Your task to perform on an android device: change the clock display to digital Image 0: 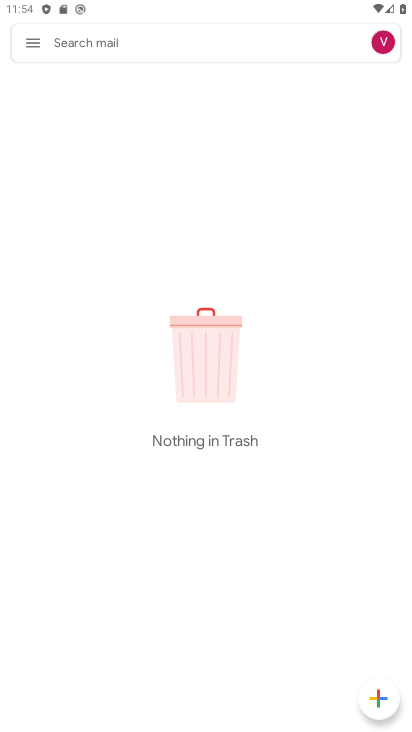
Step 0: drag from (273, 603) to (257, 71)
Your task to perform on an android device: change the clock display to digital Image 1: 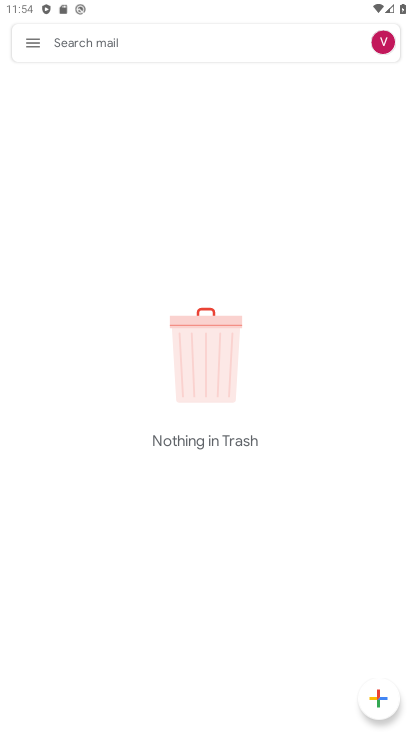
Step 1: drag from (255, 432) to (251, 37)
Your task to perform on an android device: change the clock display to digital Image 2: 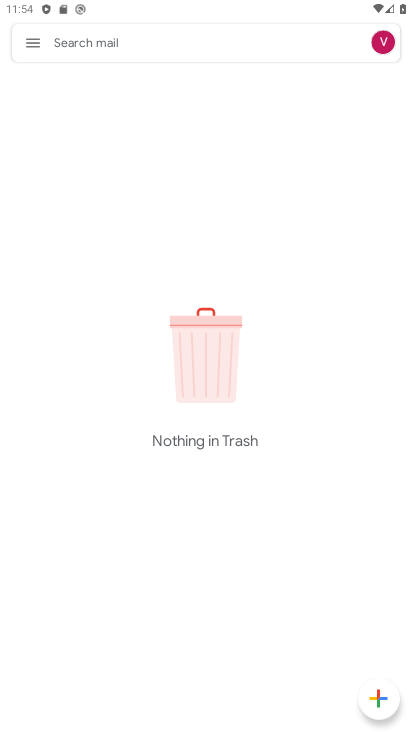
Step 2: press back button
Your task to perform on an android device: change the clock display to digital Image 3: 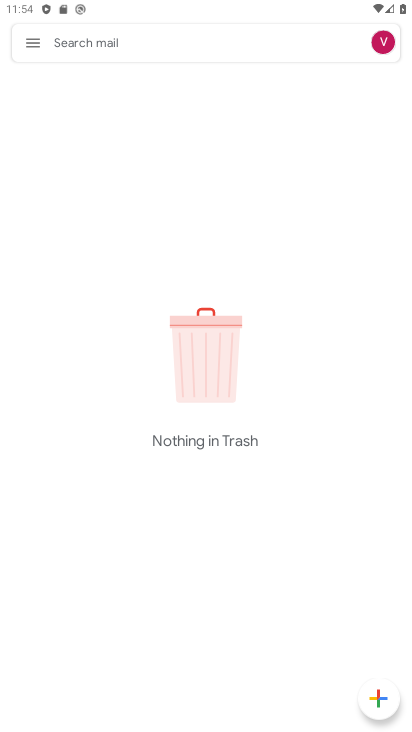
Step 3: press back button
Your task to perform on an android device: change the clock display to digital Image 4: 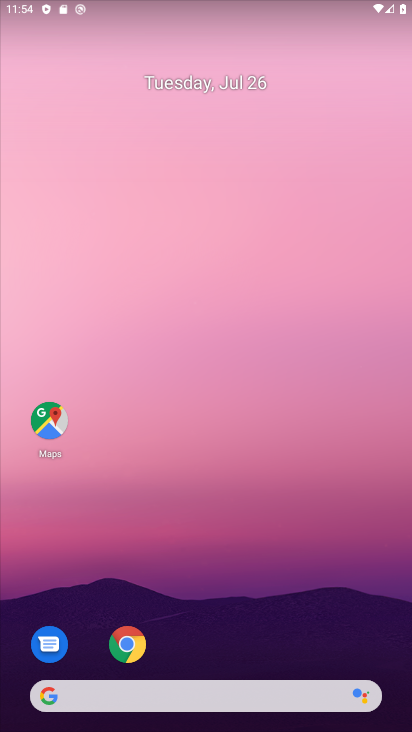
Step 4: drag from (272, 597) to (196, 99)
Your task to perform on an android device: change the clock display to digital Image 5: 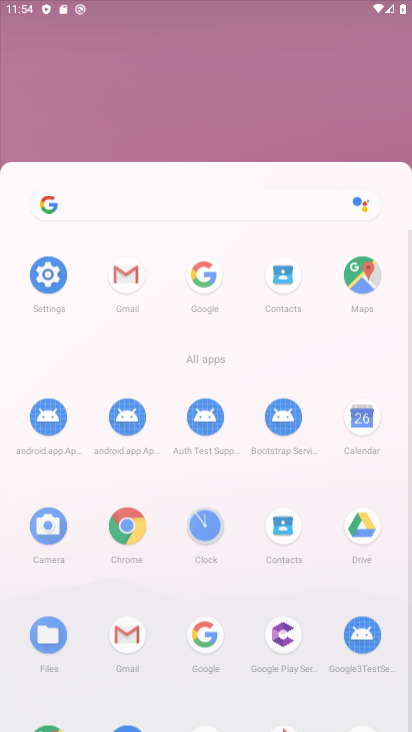
Step 5: drag from (275, 542) to (183, 20)
Your task to perform on an android device: change the clock display to digital Image 6: 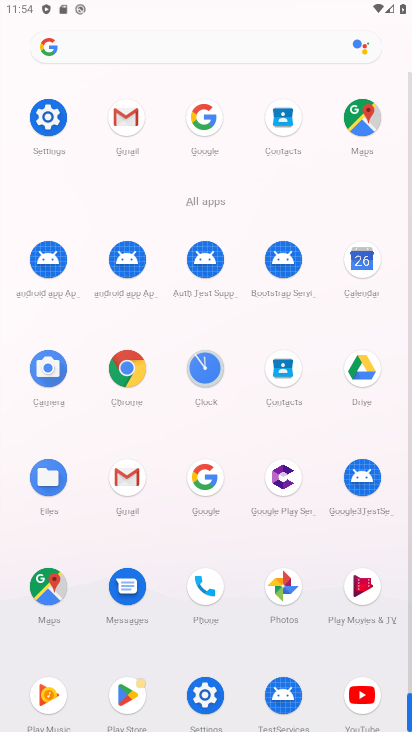
Step 6: drag from (196, 408) to (180, 18)
Your task to perform on an android device: change the clock display to digital Image 7: 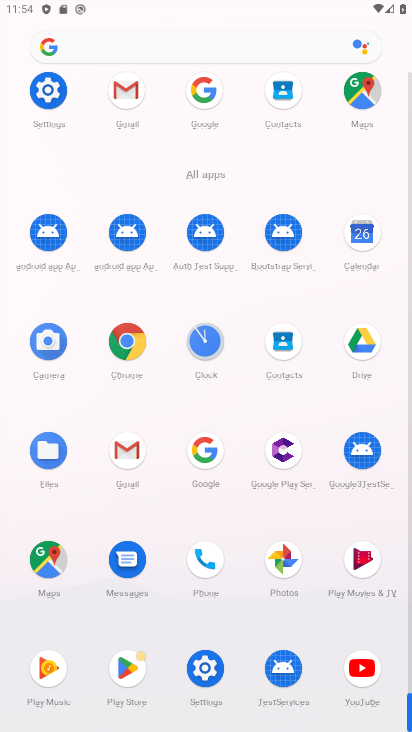
Step 7: click (196, 344)
Your task to perform on an android device: change the clock display to digital Image 8: 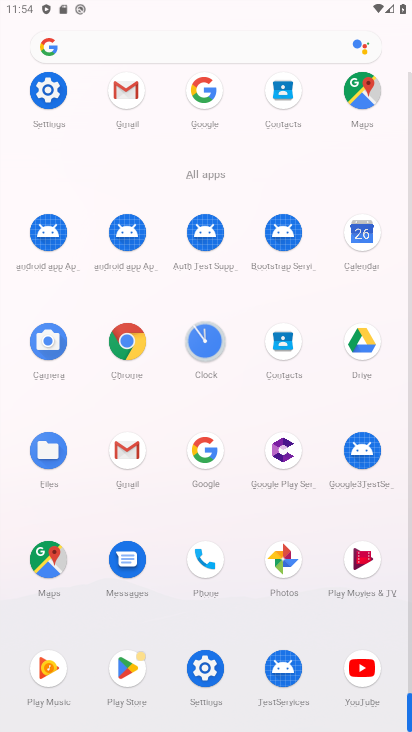
Step 8: click (208, 340)
Your task to perform on an android device: change the clock display to digital Image 9: 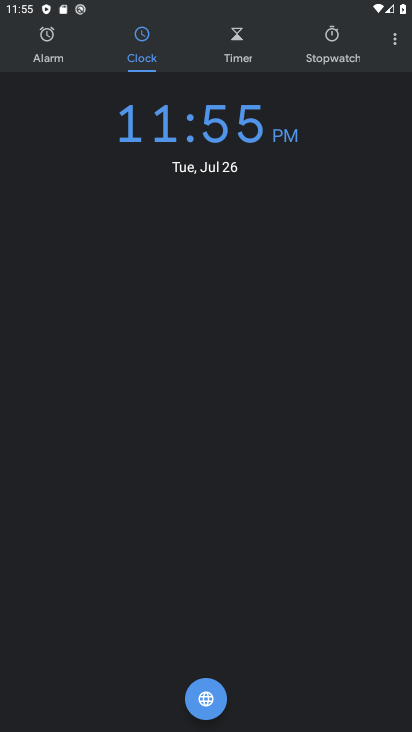
Step 9: click (397, 39)
Your task to perform on an android device: change the clock display to digital Image 10: 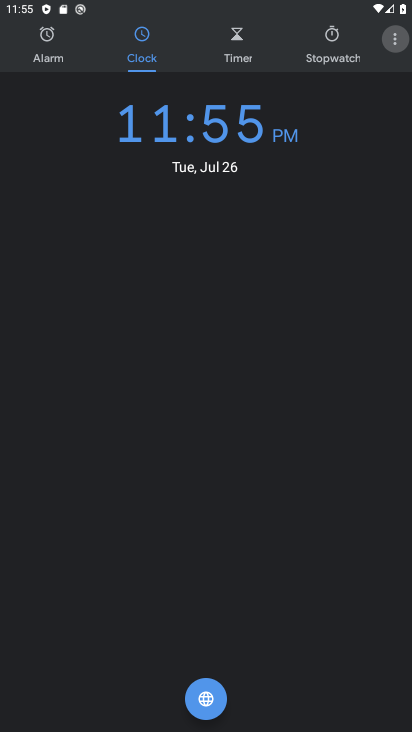
Step 10: click (390, 39)
Your task to perform on an android device: change the clock display to digital Image 11: 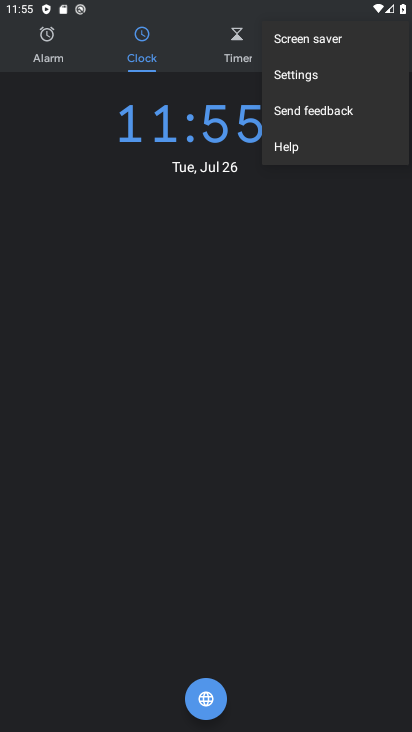
Step 11: click (292, 88)
Your task to perform on an android device: change the clock display to digital Image 12: 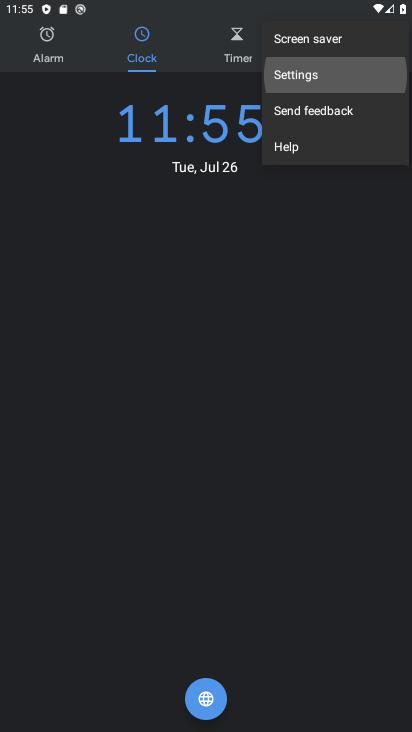
Step 12: click (294, 84)
Your task to perform on an android device: change the clock display to digital Image 13: 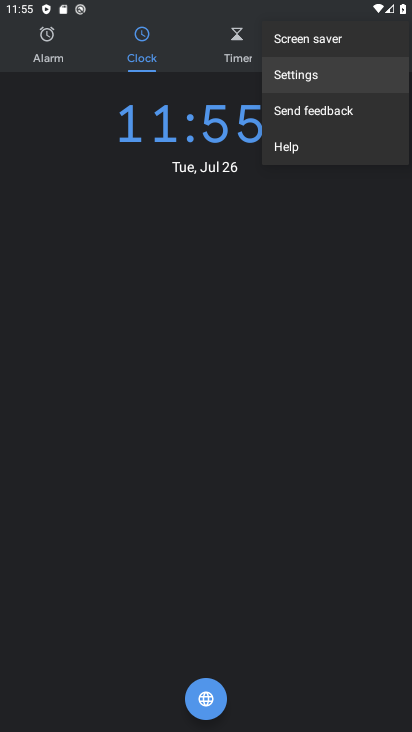
Step 13: click (296, 81)
Your task to perform on an android device: change the clock display to digital Image 14: 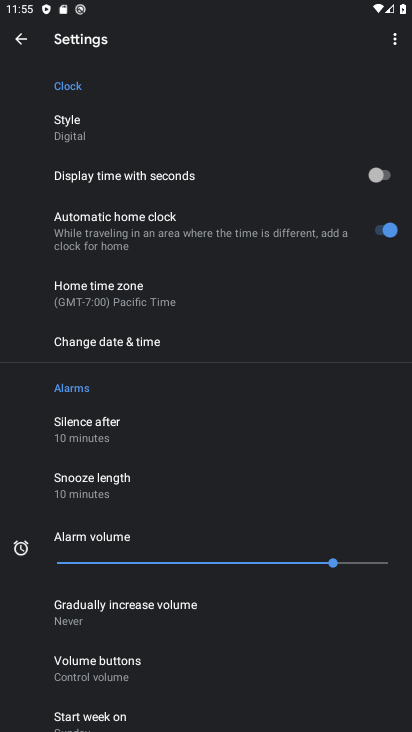
Step 14: task complete